Your task to perform on an android device: Open calendar and show me the third week of next month Image 0: 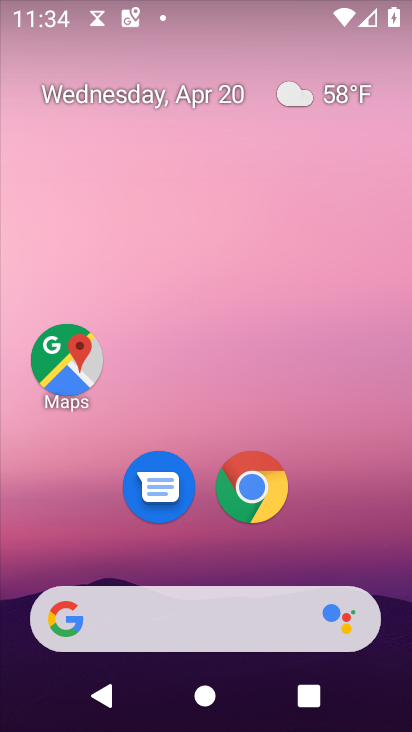
Step 0: drag from (305, 338) to (219, 4)
Your task to perform on an android device: Open calendar and show me the third week of next month Image 1: 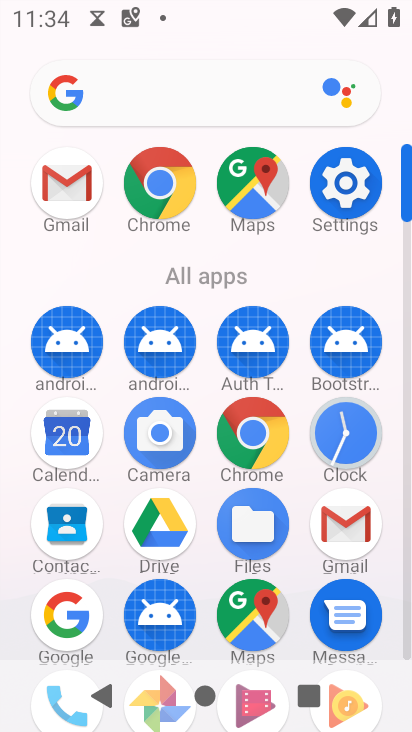
Step 1: drag from (18, 573) to (19, 291)
Your task to perform on an android device: Open calendar and show me the third week of next month Image 2: 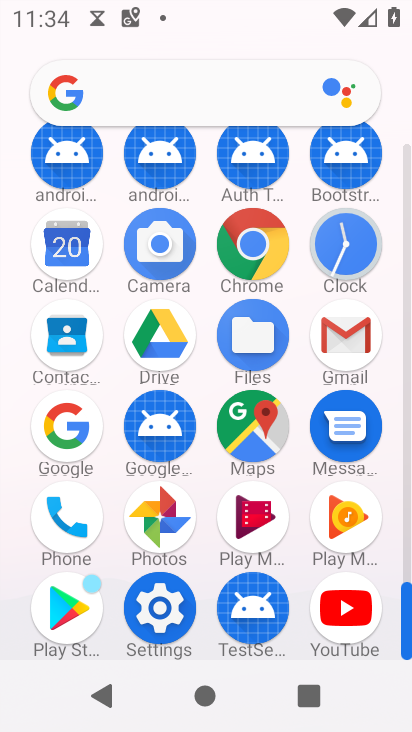
Step 2: click (64, 330)
Your task to perform on an android device: Open calendar and show me the third week of next month Image 3: 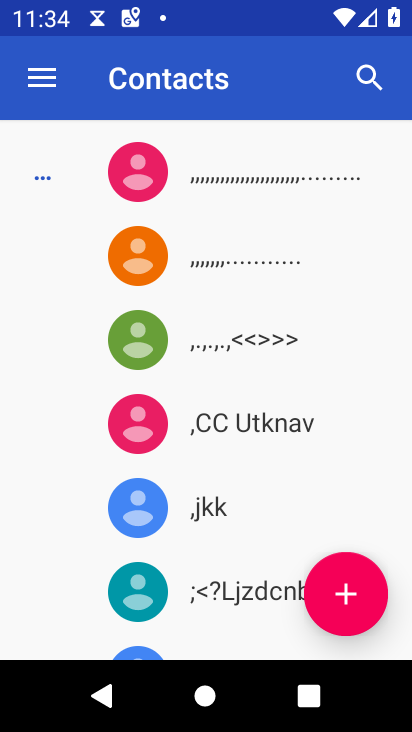
Step 3: press back button
Your task to perform on an android device: Open calendar and show me the third week of next month Image 4: 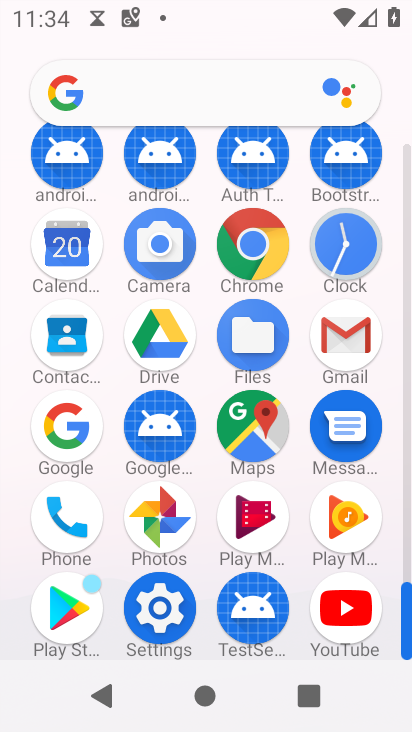
Step 4: drag from (19, 193) to (9, 461)
Your task to perform on an android device: Open calendar and show me the third week of next month Image 5: 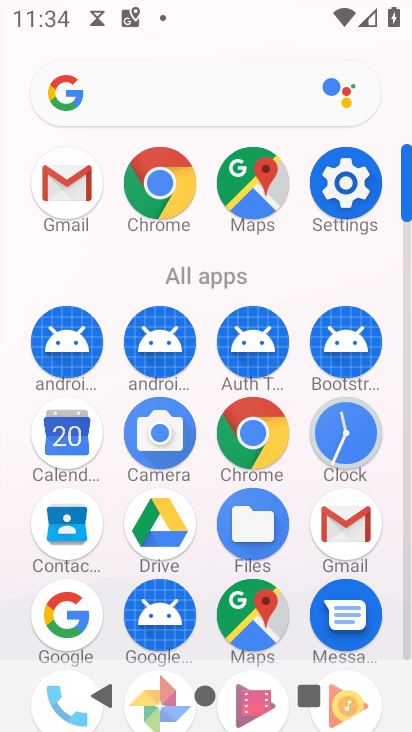
Step 5: click (58, 429)
Your task to perform on an android device: Open calendar and show me the third week of next month Image 6: 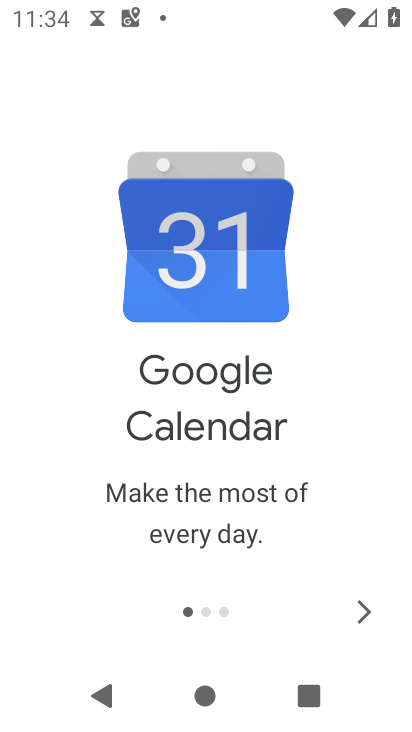
Step 6: click (346, 600)
Your task to perform on an android device: Open calendar and show me the third week of next month Image 7: 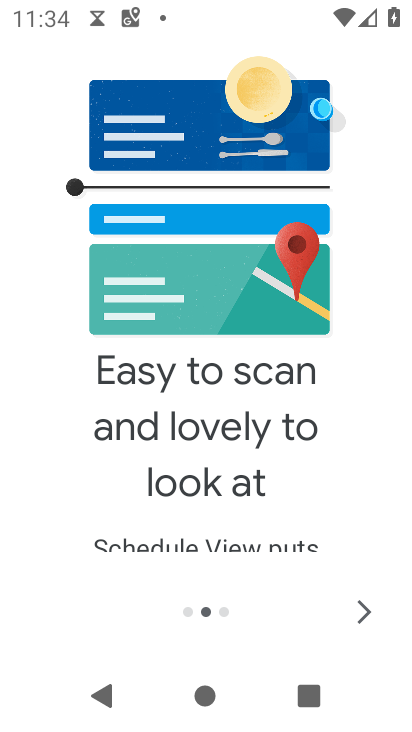
Step 7: click (355, 604)
Your task to perform on an android device: Open calendar and show me the third week of next month Image 8: 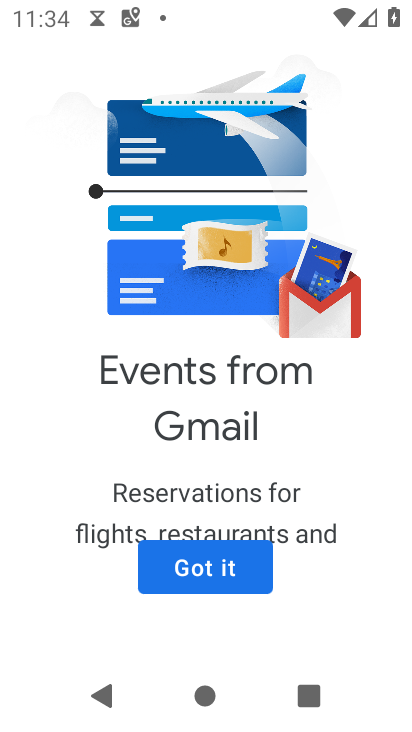
Step 8: click (248, 567)
Your task to perform on an android device: Open calendar and show me the third week of next month Image 9: 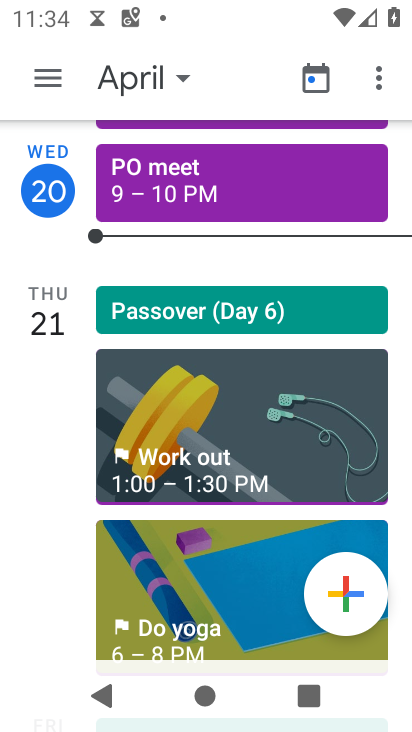
Step 9: click (175, 72)
Your task to perform on an android device: Open calendar and show me the third week of next month Image 10: 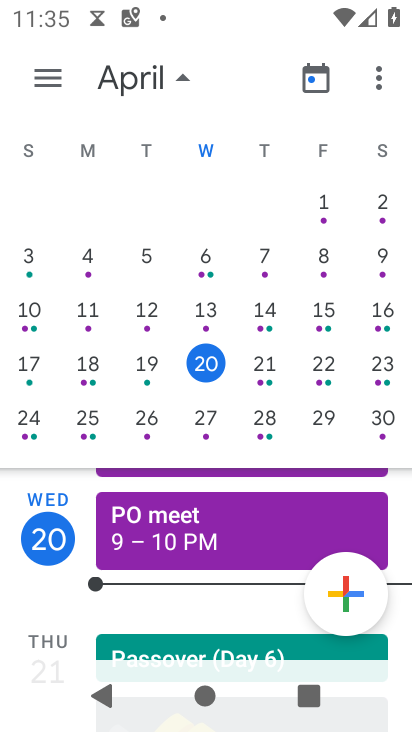
Step 10: drag from (326, 304) to (0, 282)
Your task to perform on an android device: Open calendar and show me the third week of next month Image 11: 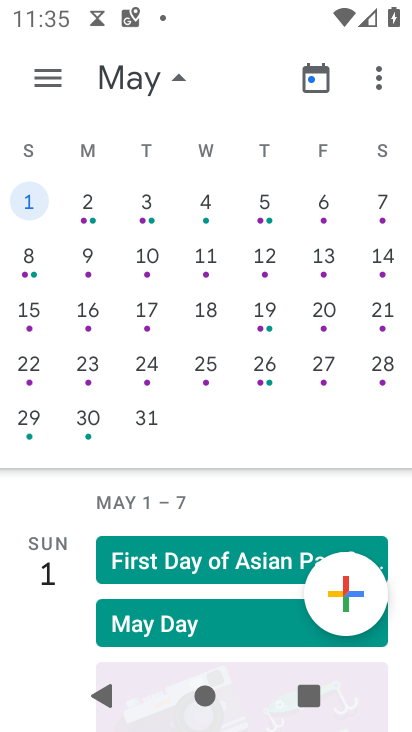
Step 11: click (37, 253)
Your task to perform on an android device: Open calendar and show me the third week of next month Image 12: 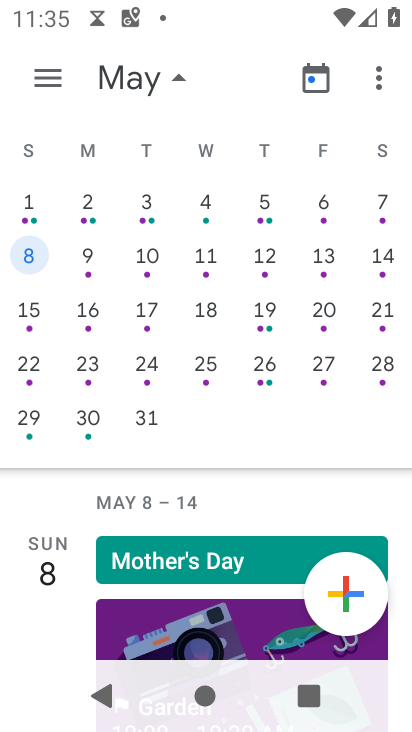
Step 12: click (40, 109)
Your task to perform on an android device: Open calendar and show me the third week of next month Image 13: 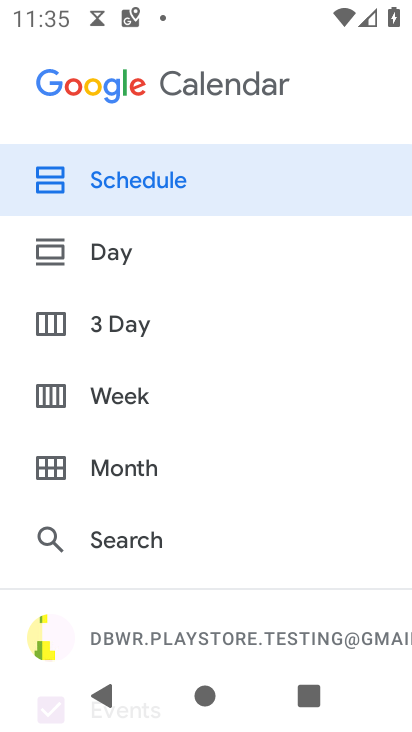
Step 13: click (84, 399)
Your task to perform on an android device: Open calendar and show me the third week of next month Image 14: 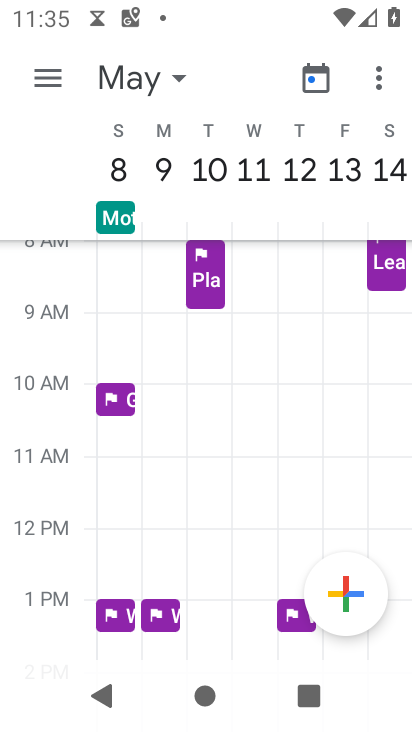
Step 14: task complete